Your task to perform on an android device: Open the stopwatch Image 0: 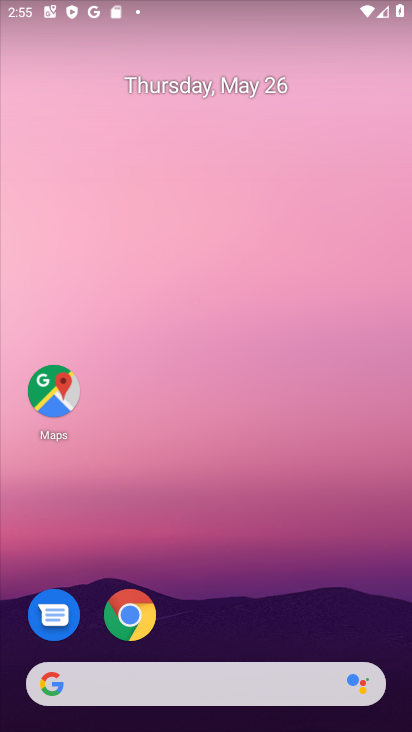
Step 0: drag from (218, 584) to (195, 150)
Your task to perform on an android device: Open the stopwatch Image 1: 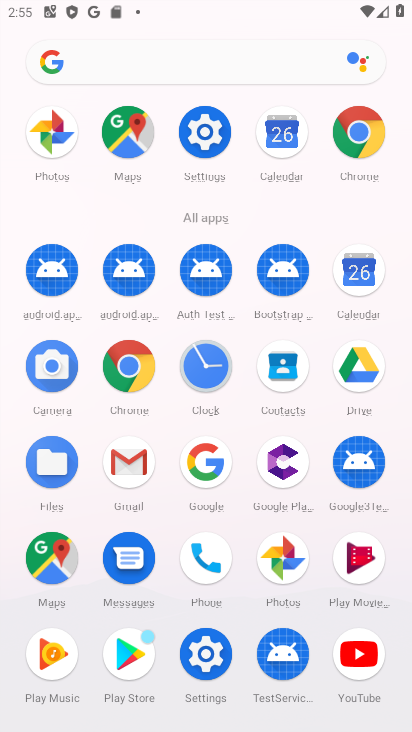
Step 1: click (204, 392)
Your task to perform on an android device: Open the stopwatch Image 2: 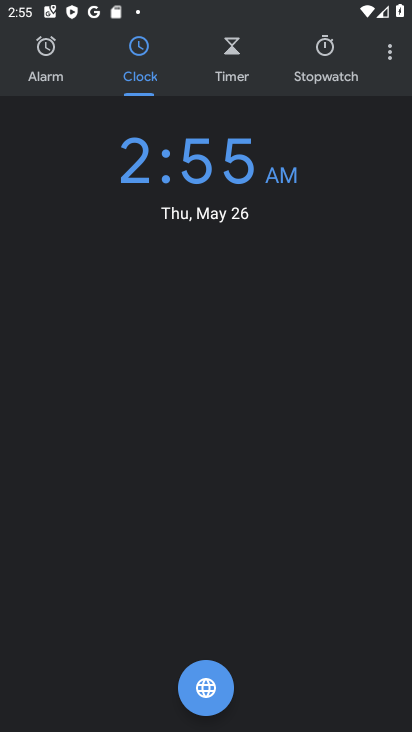
Step 2: click (315, 78)
Your task to perform on an android device: Open the stopwatch Image 3: 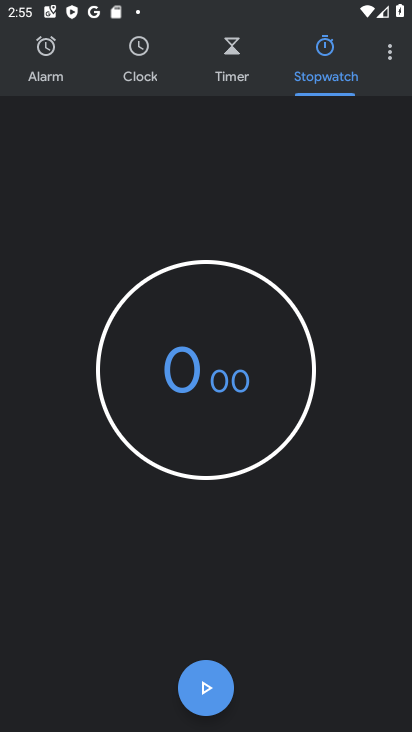
Step 3: task complete